Your task to perform on an android device: Open accessibility settings Image 0: 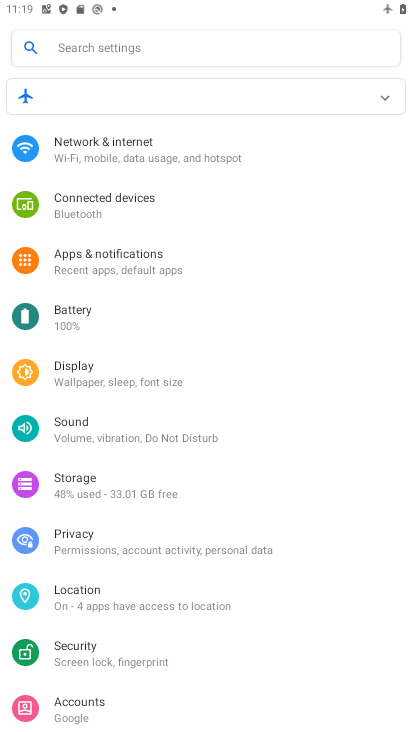
Step 0: drag from (96, 685) to (162, 259)
Your task to perform on an android device: Open accessibility settings Image 1: 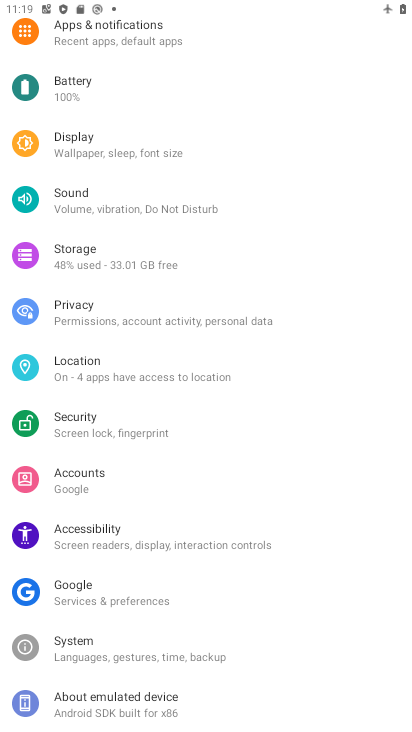
Step 1: click (137, 538)
Your task to perform on an android device: Open accessibility settings Image 2: 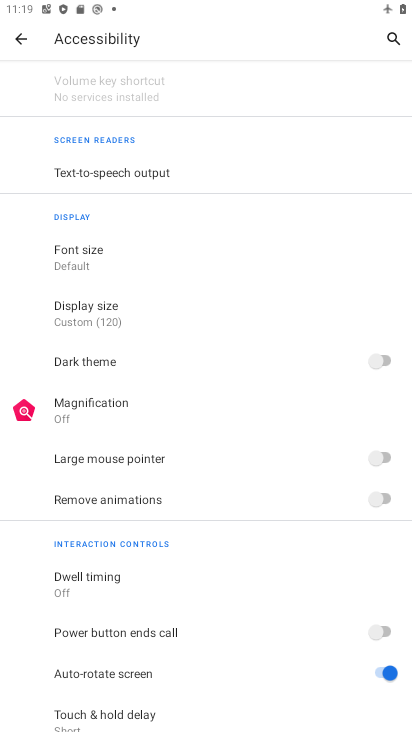
Step 2: task complete